Your task to perform on an android device: turn vacation reply on in the gmail app Image 0: 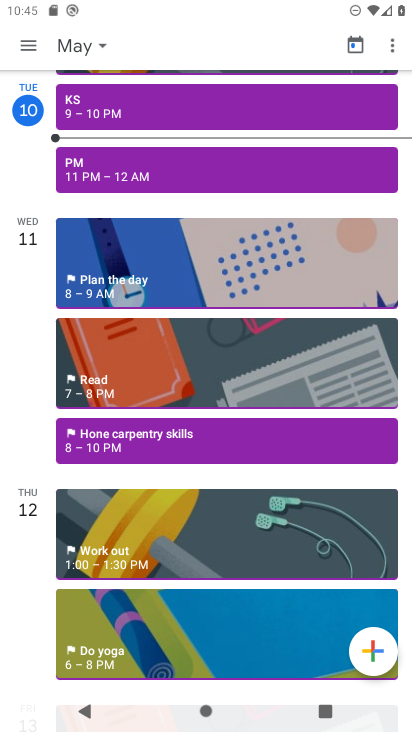
Step 0: press home button
Your task to perform on an android device: turn vacation reply on in the gmail app Image 1: 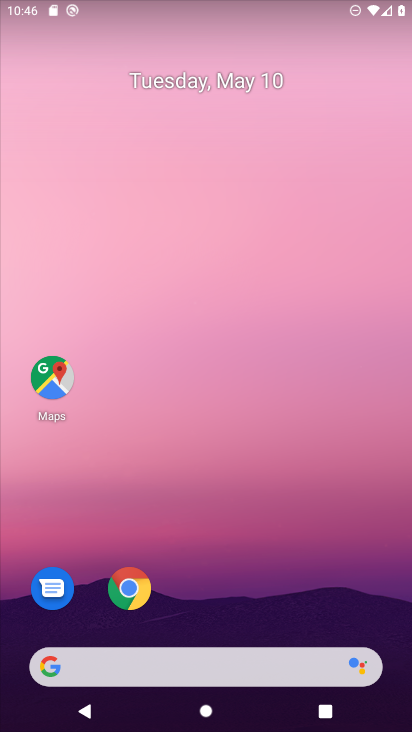
Step 1: drag from (202, 590) to (212, 208)
Your task to perform on an android device: turn vacation reply on in the gmail app Image 2: 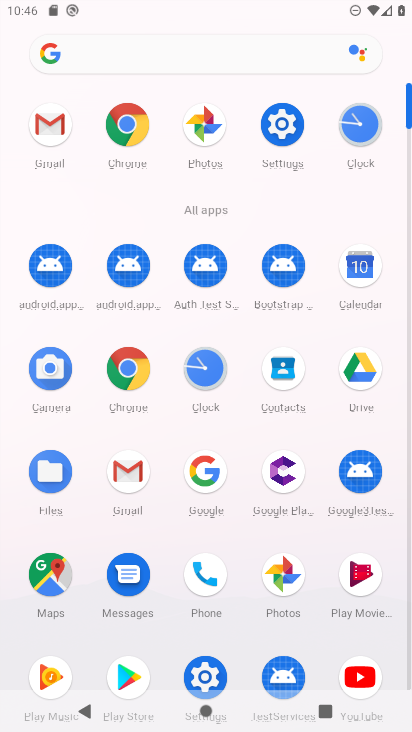
Step 2: click (45, 135)
Your task to perform on an android device: turn vacation reply on in the gmail app Image 3: 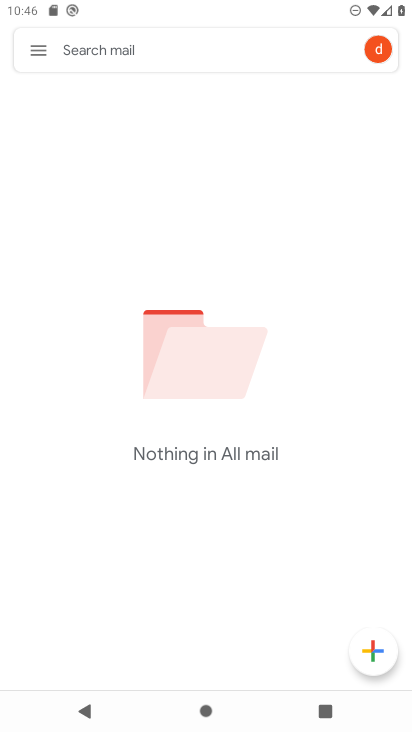
Step 3: click (43, 42)
Your task to perform on an android device: turn vacation reply on in the gmail app Image 4: 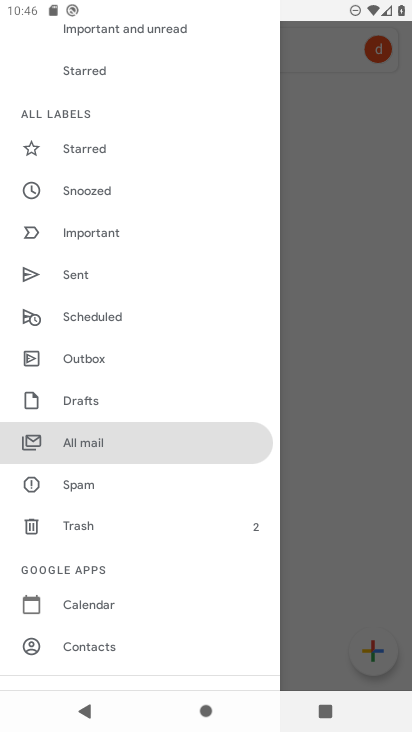
Step 4: drag from (128, 540) to (148, 239)
Your task to perform on an android device: turn vacation reply on in the gmail app Image 5: 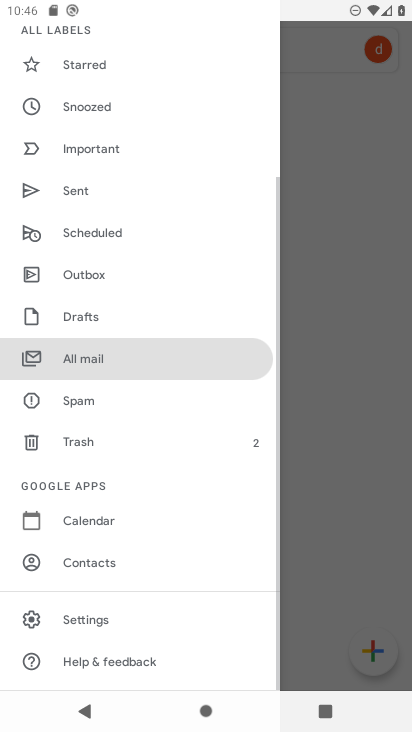
Step 5: click (118, 605)
Your task to perform on an android device: turn vacation reply on in the gmail app Image 6: 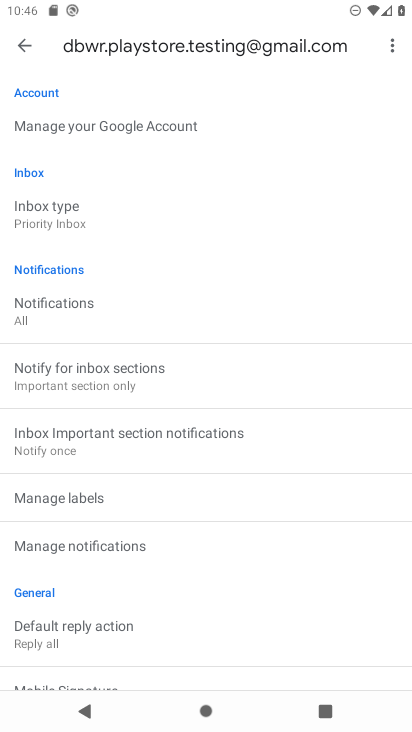
Step 6: drag from (218, 619) to (210, 381)
Your task to perform on an android device: turn vacation reply on in the gmail app Image 7: 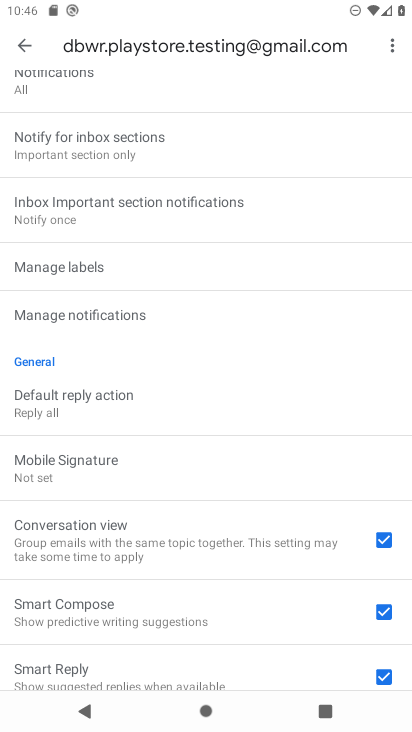
Step 7: drag from (104, 632) to (123, 438)
Your task to perform on an android device: turn vacation reply on in the gmail app Image 8: 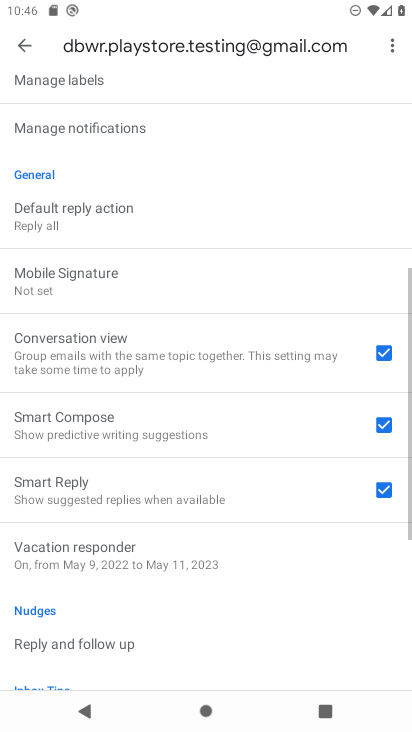
Step 8: drag from (146, 611) to (144, 548)
Your task to perform on an android device: turn vacation reply on in the gmail app Image 9: 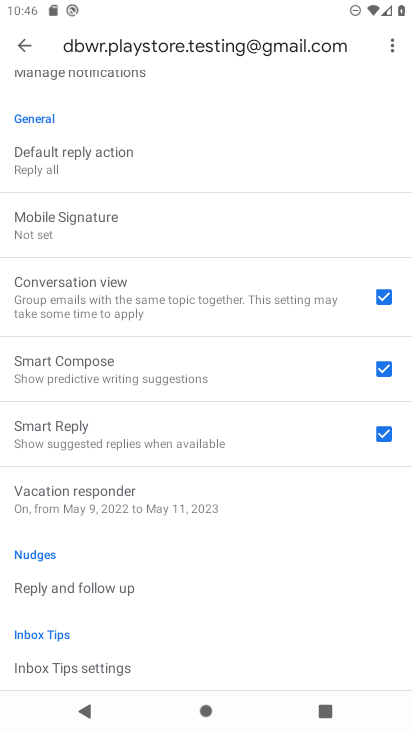
Step 9: click (142, 505)
Your task to perform on an android device: turn vacation reply on in the gmail app Image 10: 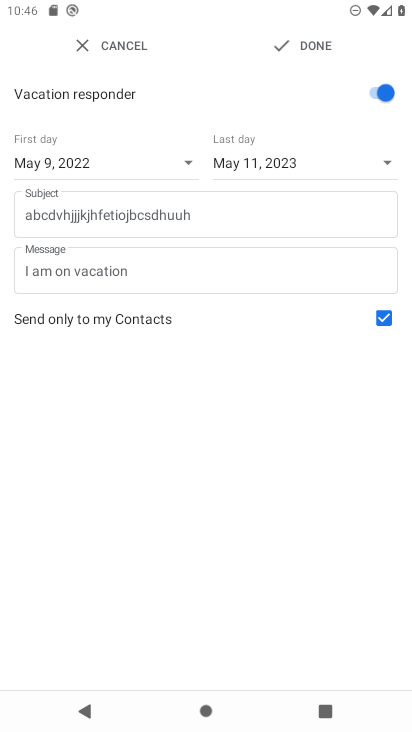
Step 10: task complete